Your task to perform on an android device: What's the weather? Image 0: 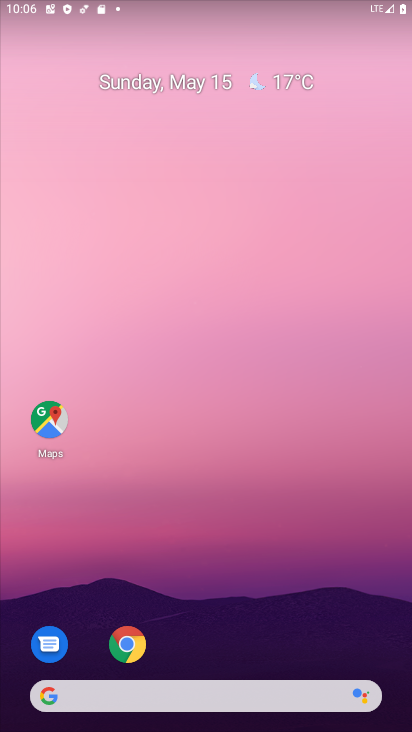
Step 0: drag from (268, 704) to (215, 183)
Your task to perform on an android device: What's the weather? Image 1: 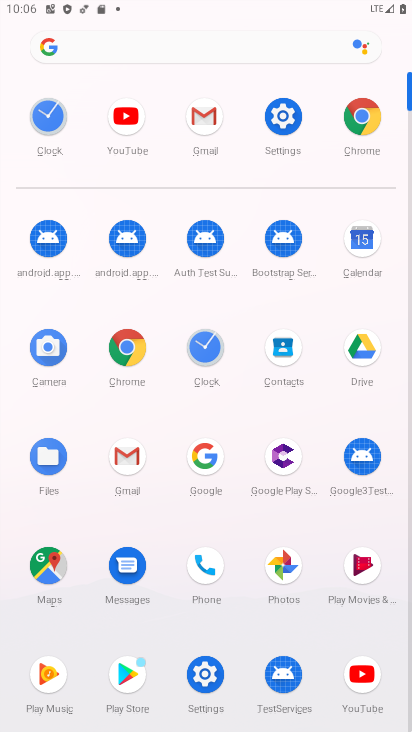
Step 1: click (132, 37)
Your task to perform on an android device: What's the weather? Image 2: 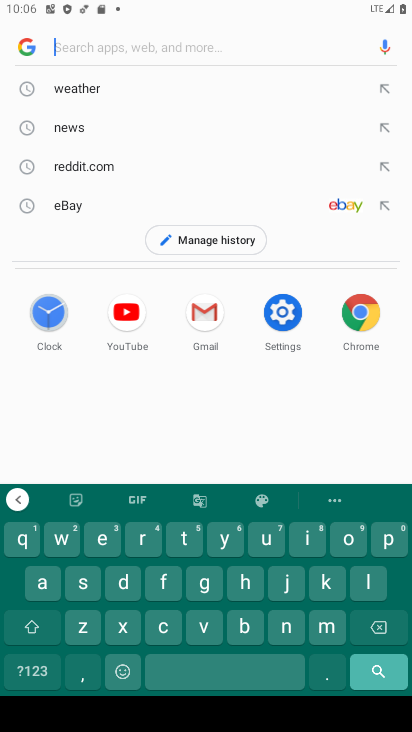
Step 2: click (80, 98)
Your task to perform on an android device: What's the weather? Image 3: 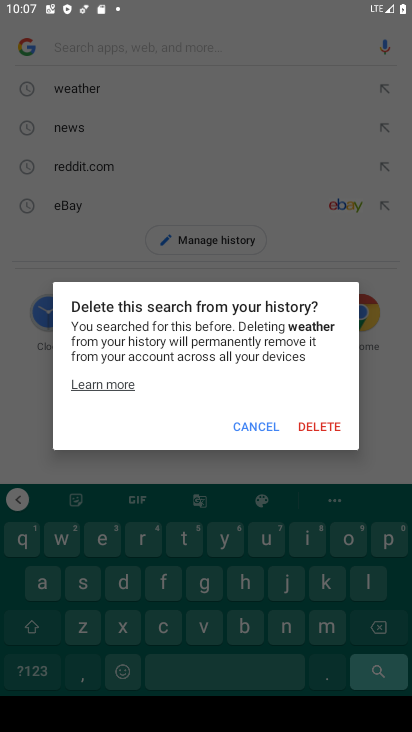
Step 3: click (238, 426)
Your task to perform on an android device: What's the weather? Image 4: 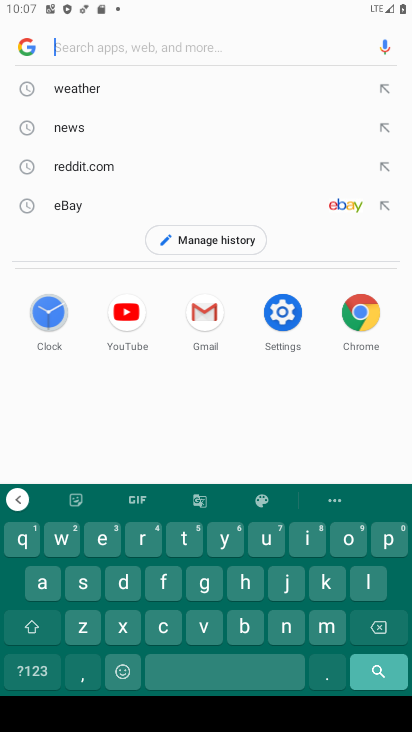
Step 4: click (114, 90)
Your task to perform on an android device: What's the weather? Image 5: 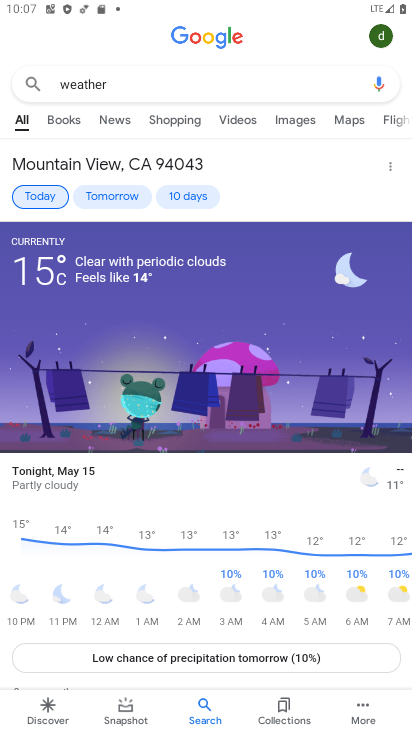
Step 5: task complete